Your task to perform on an android device: Go to sound settings Image 0: 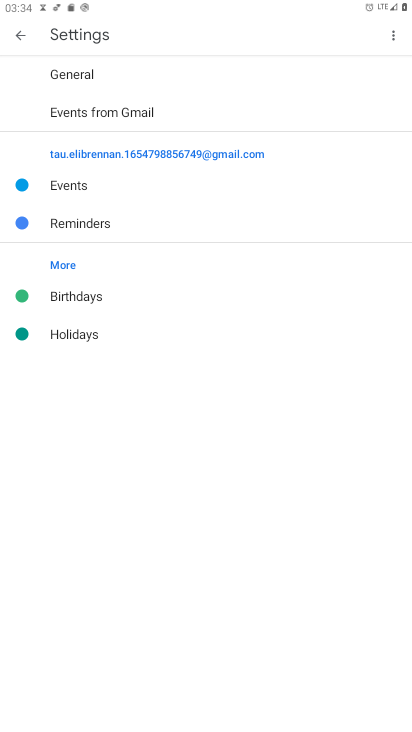
Step 0: press home button
Your task to perform on an android device: Go to sound settings Image 1: 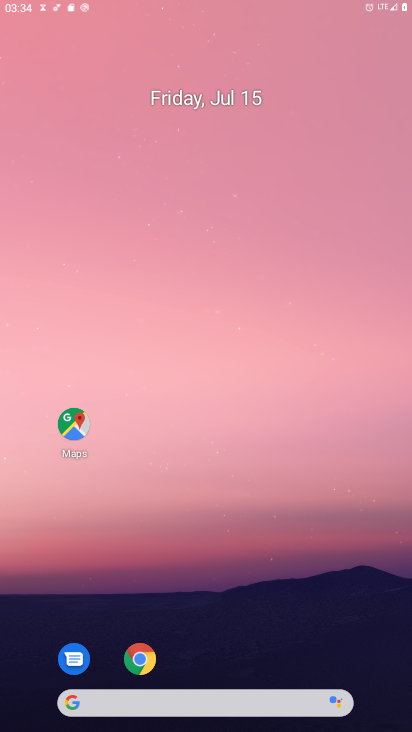
Step 1: drag from (184, 574) to (172, 139)
Your task to perform on an android device: Go to sound settings Image 2: 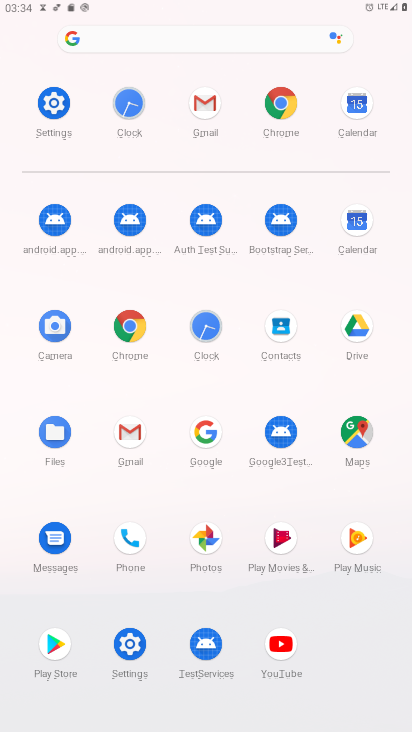
Step 2: click (54, 94)
Your task to perform on an android device: Go to sound settings Image 3: 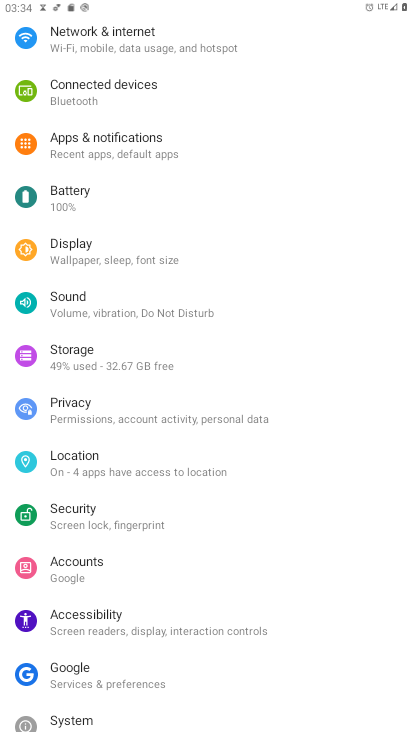
Step 3: click (89, 306)
Your task to perform on an android device: Go to sound settings Image 4: 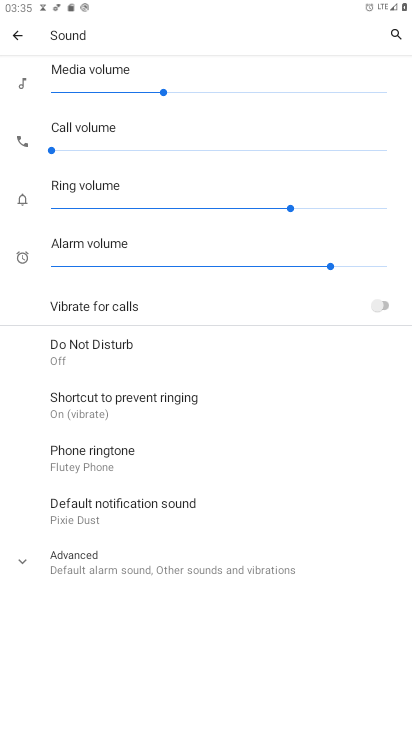
Step 4: task complete